Your task to perform on an android device: Open Youtube and go to the subscriptions tab Image 0: 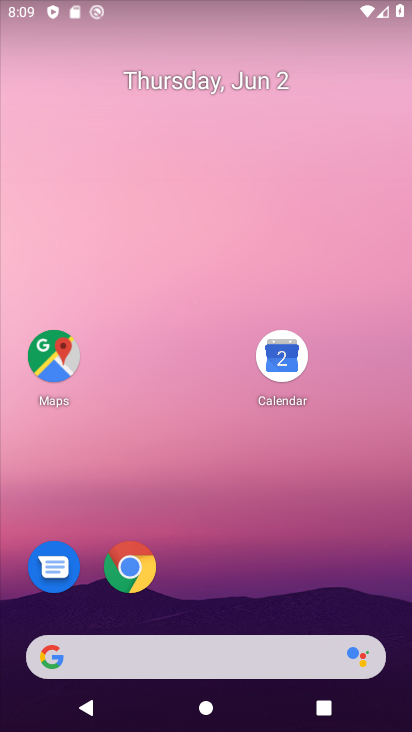
Step 0: drag from (279, 668) to (373, 29)
Your task to perform on an android device: Open Youtube and go to the subscriptions tab Image 1: 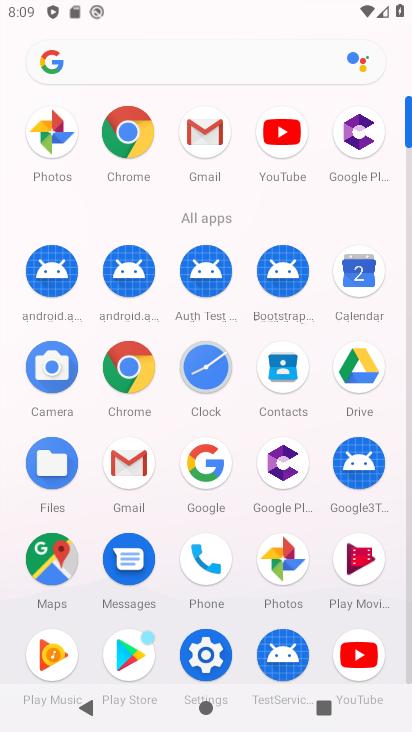
Step 1: click (278, 135)
Your task to perform on an android device: Open Youtube and go to the subscriptions tab Image 2: 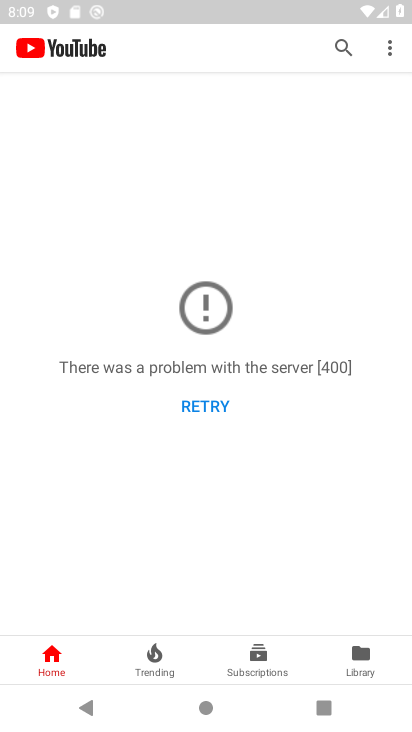
Step 2: click (253, 654)
Your task to perform on an android device: Open Youtube and go to the subscriptions tab Image 3: 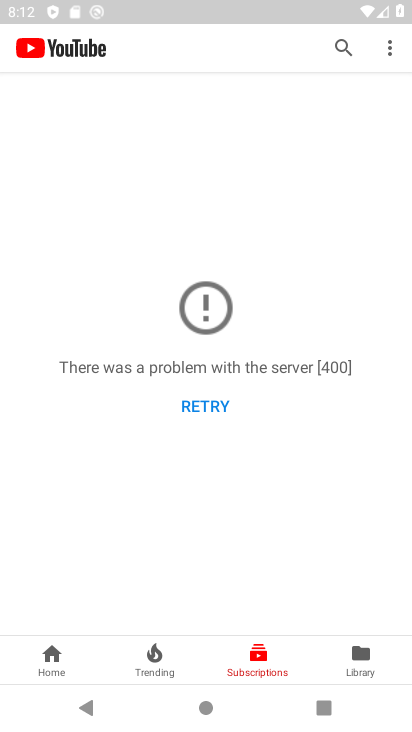
Step 3: task complete